Your task to perform on an android device: Add macbook air to the cart on amazon, then select checkout. Image 0: 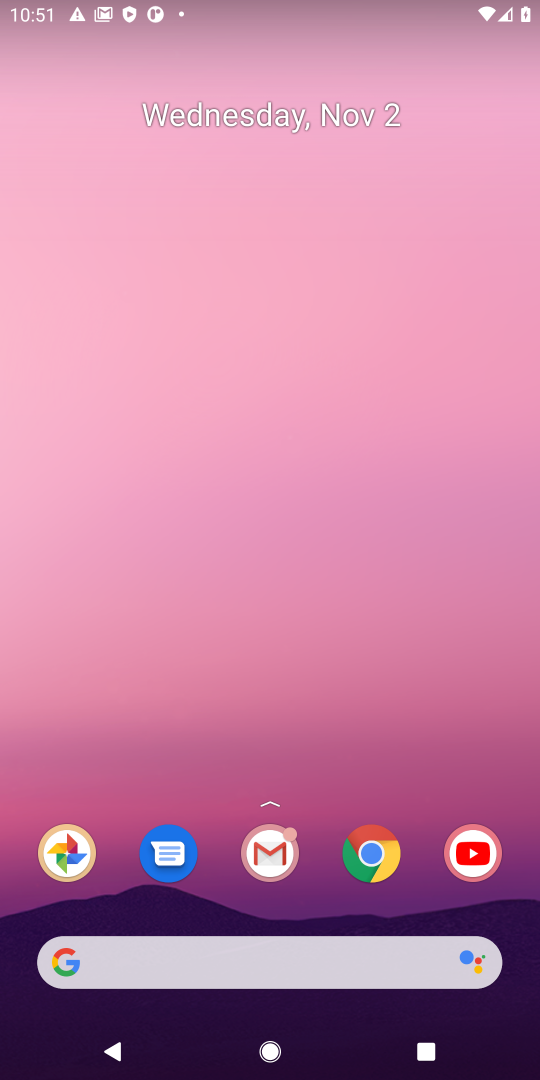
Step 0: click (371, 854)
Your task to perform on an android device: Add macbook air to the cart on amazon, then select checkout. Image 1: 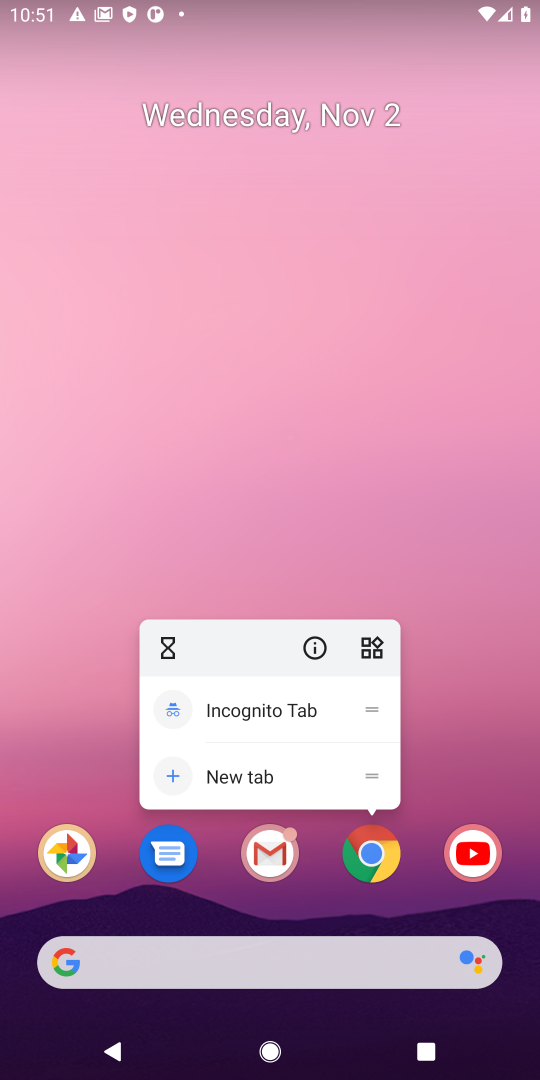
Step 1: click (371, 849)
Your task to perform on an android device: Add macbook air to the cart on amazon, then select checkout. Image 2: 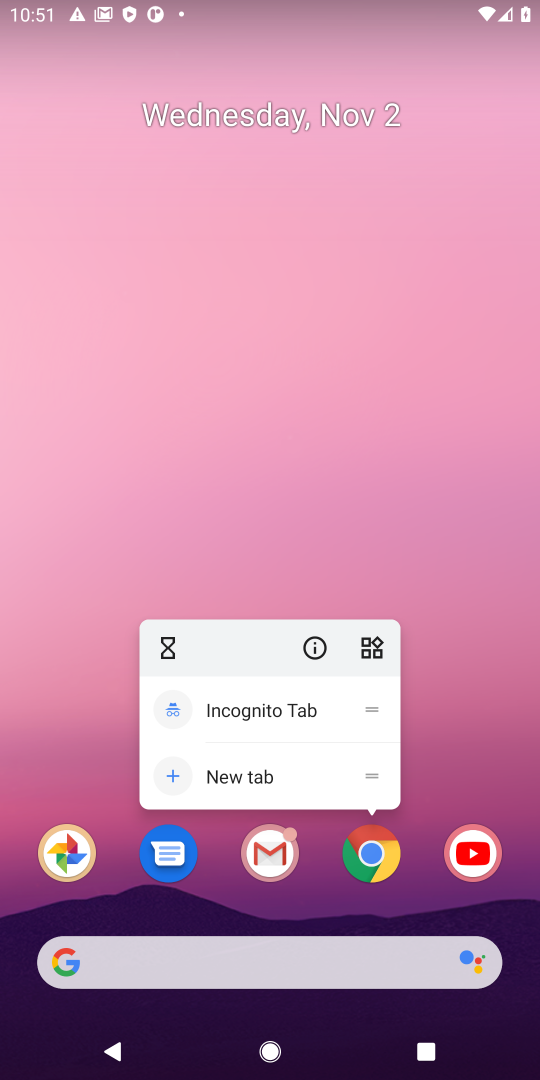
Step 2: click (371, 854)
Your task to perform on an android device: Add macbook air to the cart on amazon, then select checkout. Image 3: 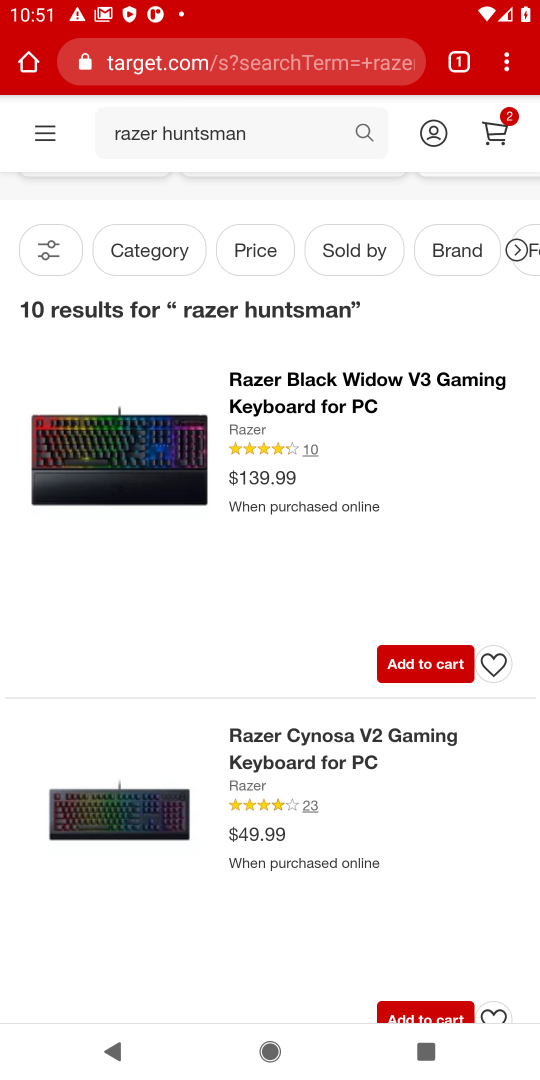
Step 3: click (248, 67)
Your task to perform on an android device: Add macbook air to the cart on amazon, then select checkout. Image 4: 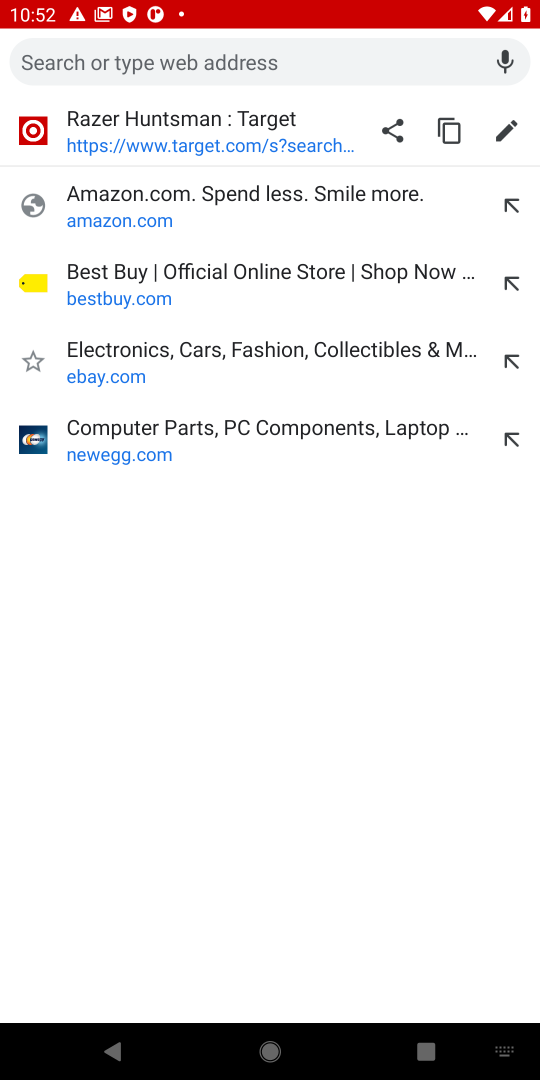
Step 4: click (96, 222)
Your task to perform on an android device: Add macbook air to the cart on amazon, then select checkout. Image 5: 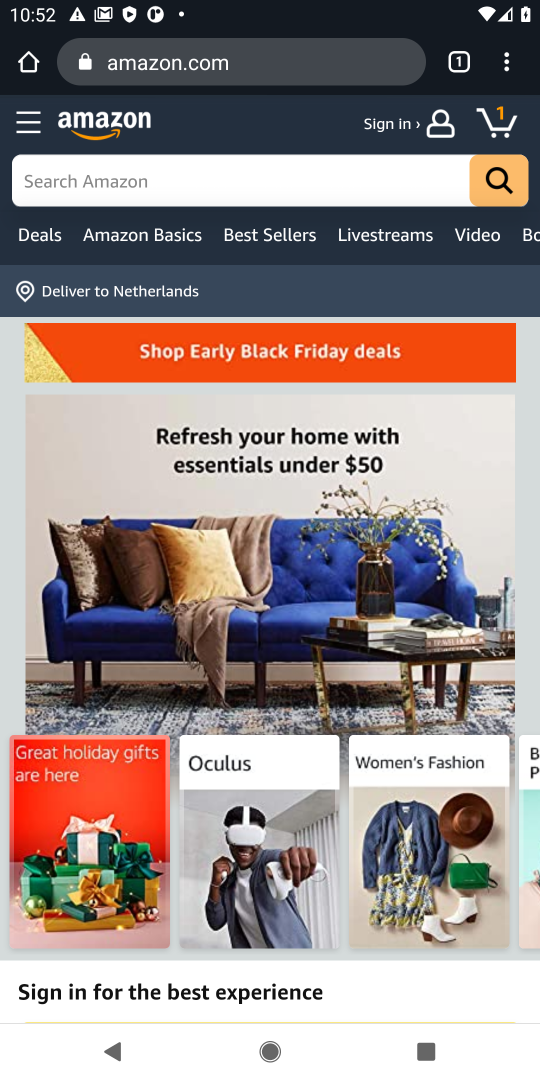
Step 5: click (102, 185)
Your task to perform on an android device: Add macbook air to the cart on amazon, then select checkout. Image 6: 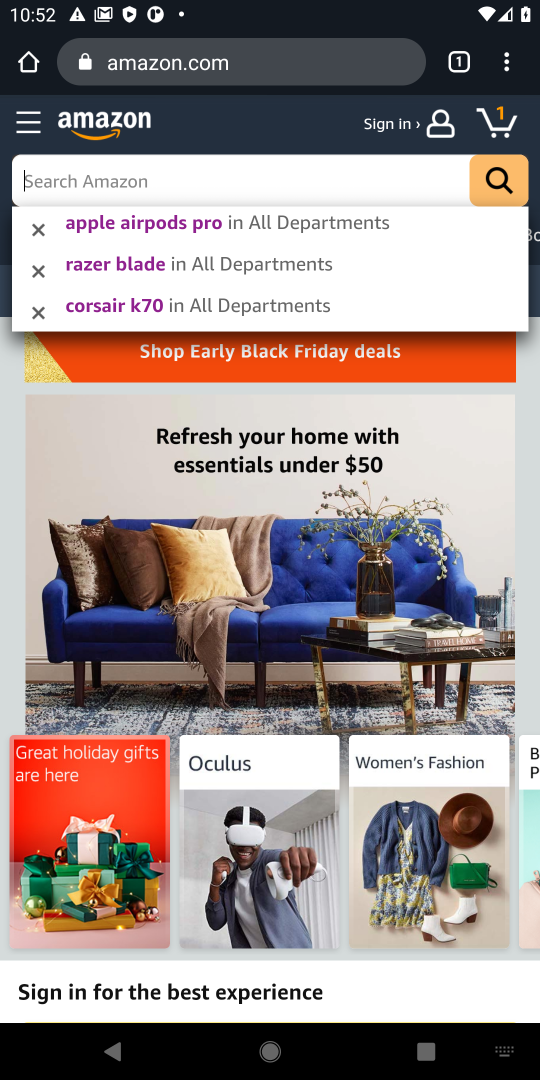
Step 6: type " macbook air"
Your task to perform on an android device: Add macbook air to the cart on amazon, then select checkout. Image 7: 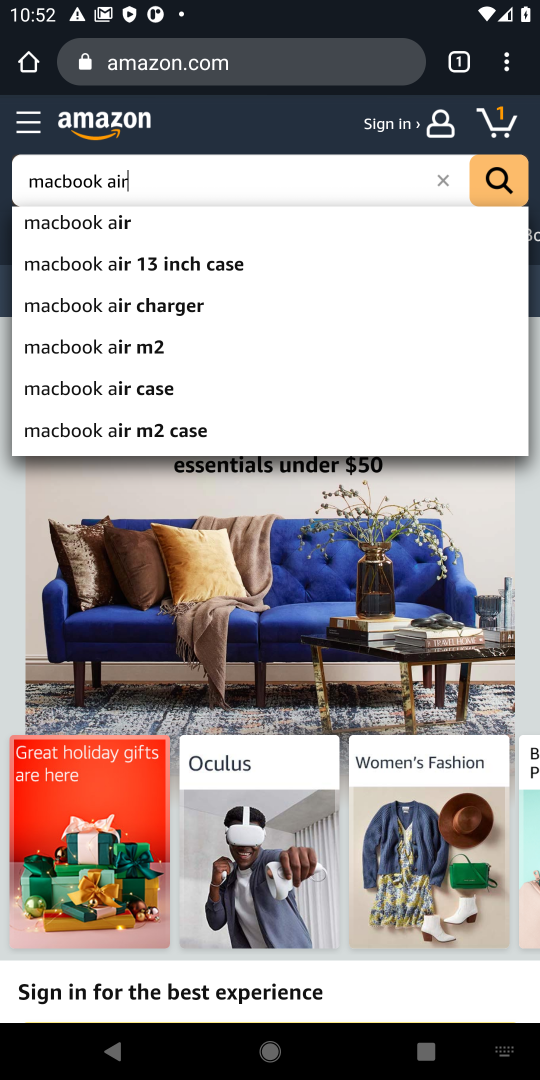
Step 7: press enter
Your task to perform on an android device: Add macbook air to the cart on amazon, then select checkout. Image 8: 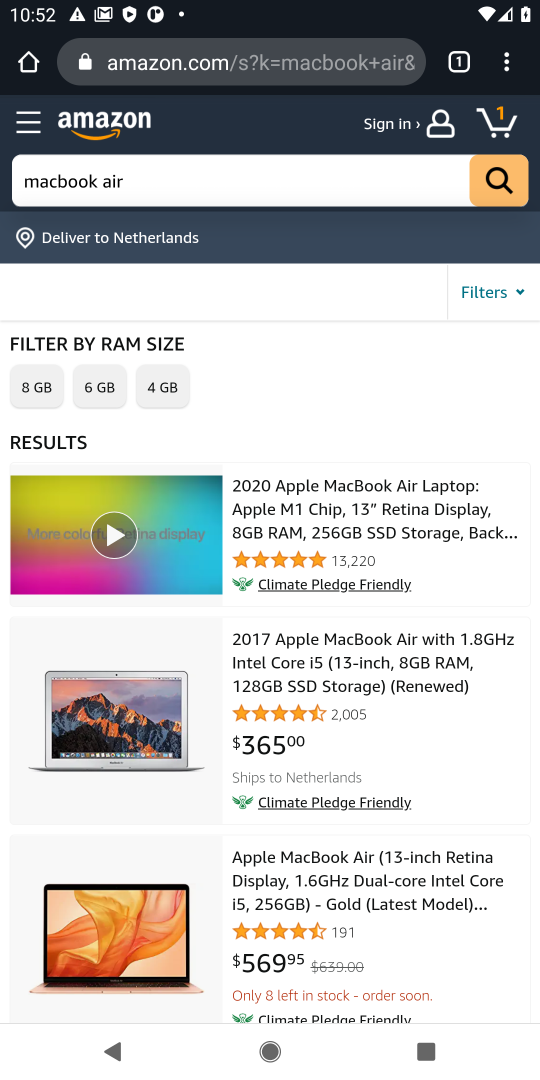
Step 8: click (336, 495)
Your task to perform on an android device: Add macbook air to the cart on amazon, then select checkout. Image 9: 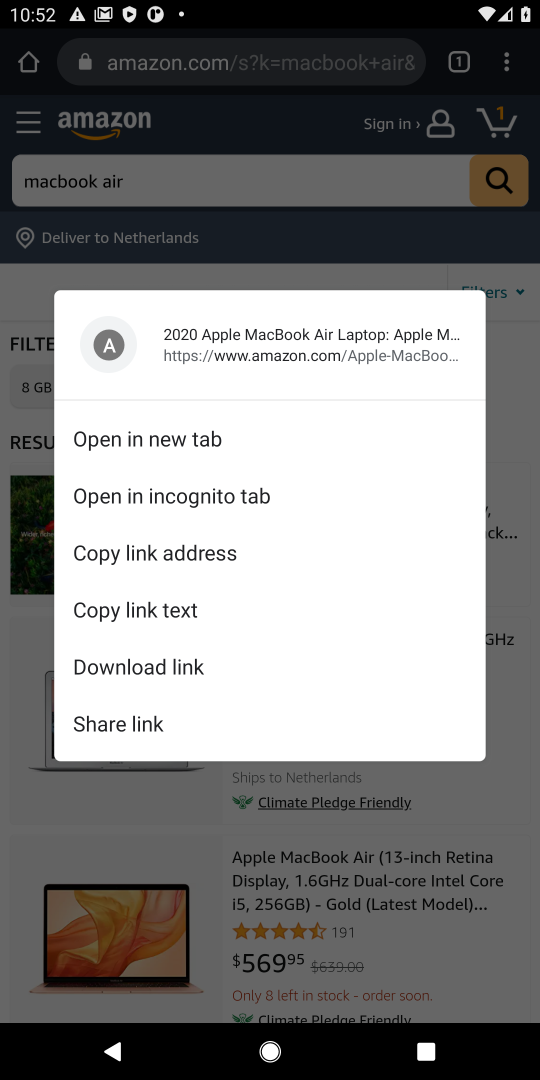
Step 9: click (502, 521)
Your task to perform on an android device: Add macbook air to the cart on amazon, then select checkout. Image 10: 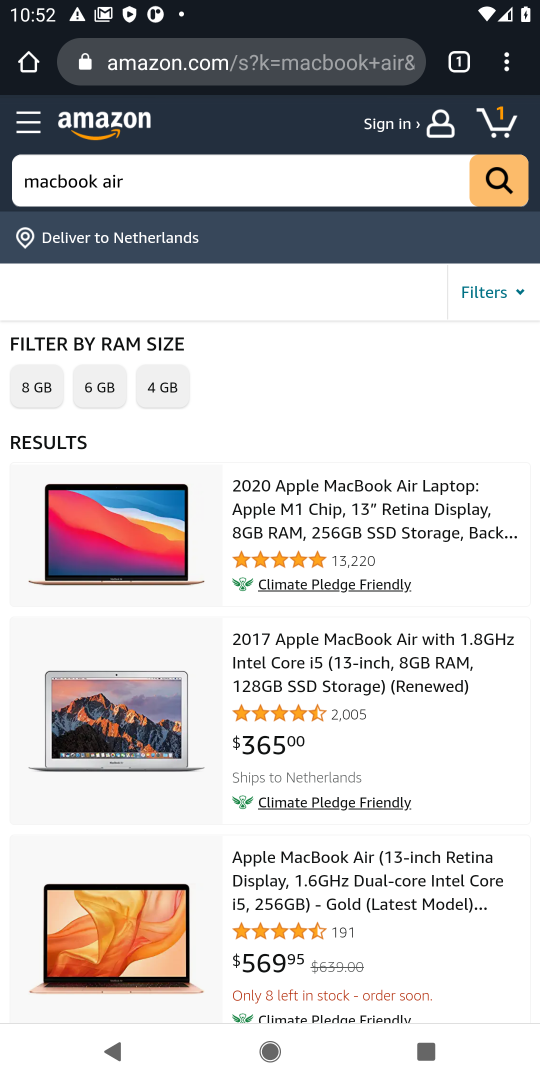
Step 10: click (252, 527)
Your task to perform on an android device: Add macbook air to the cart on amazon, then select checkout. Image 11: 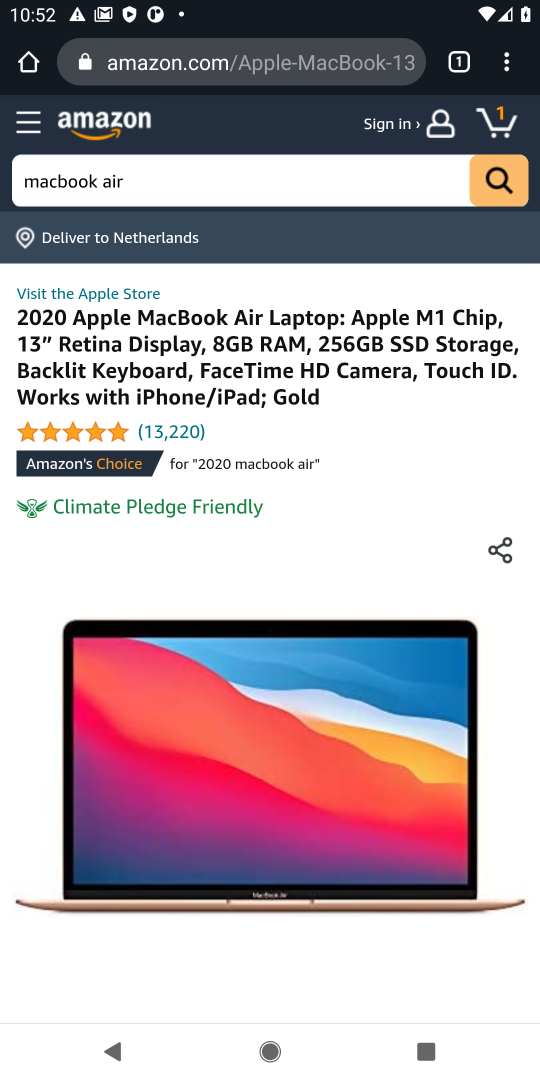
Step 11: drag from (146, 824) to (454, 261)
Your task to perform on an android device: Add macbook air to the cart on amazon, then select checkout. Image 12: 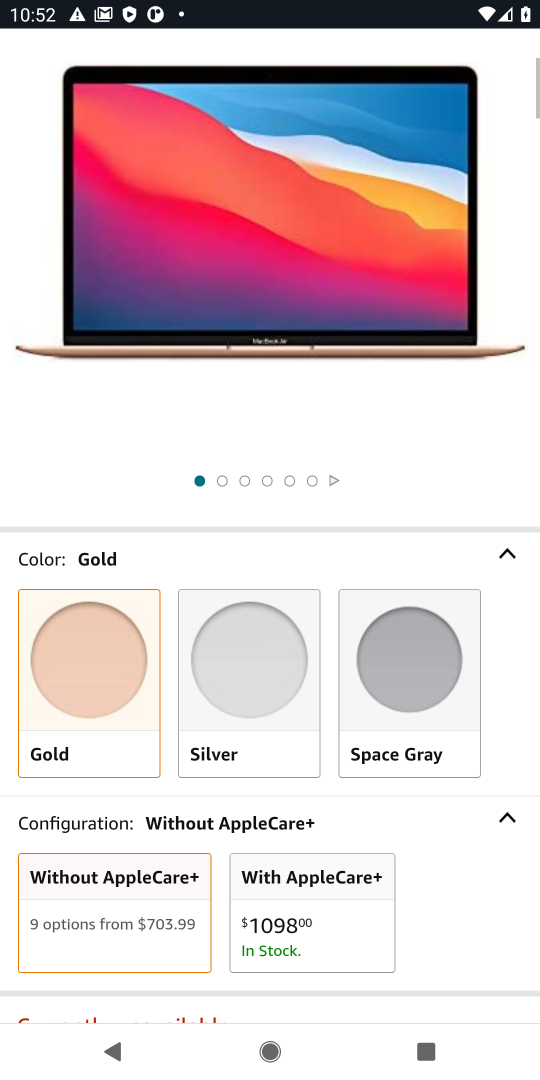
Step 12: drag from (297, 910) to (389, 397)
Your task to perform on an android device: Add macbook air to the cart on amazon, then select checkout. Image 13: 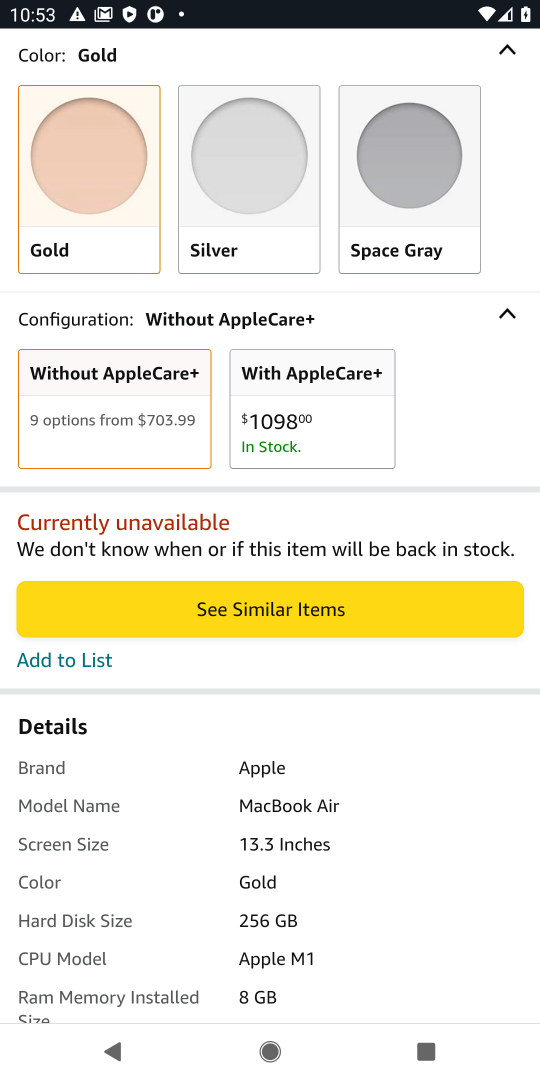
Step 13: press back button
Your task to perform on an android device: Add macbook air to the cart on amazon, then select checkout. Image 14: 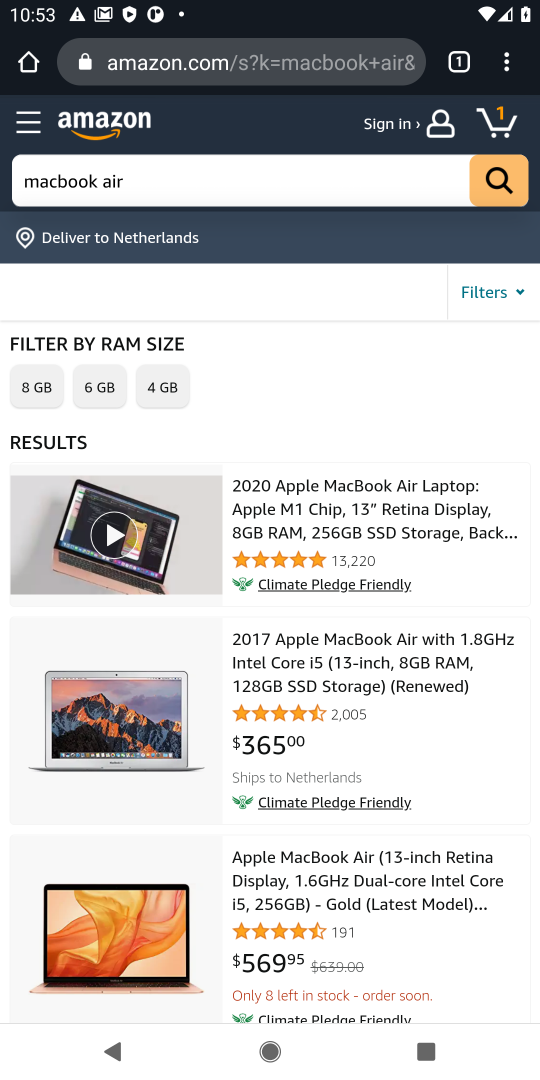
Step 14: click (309, 680)
Your task to perform on an android device: Add macbook air to the cart on amazon, then select checkout. Image 15: 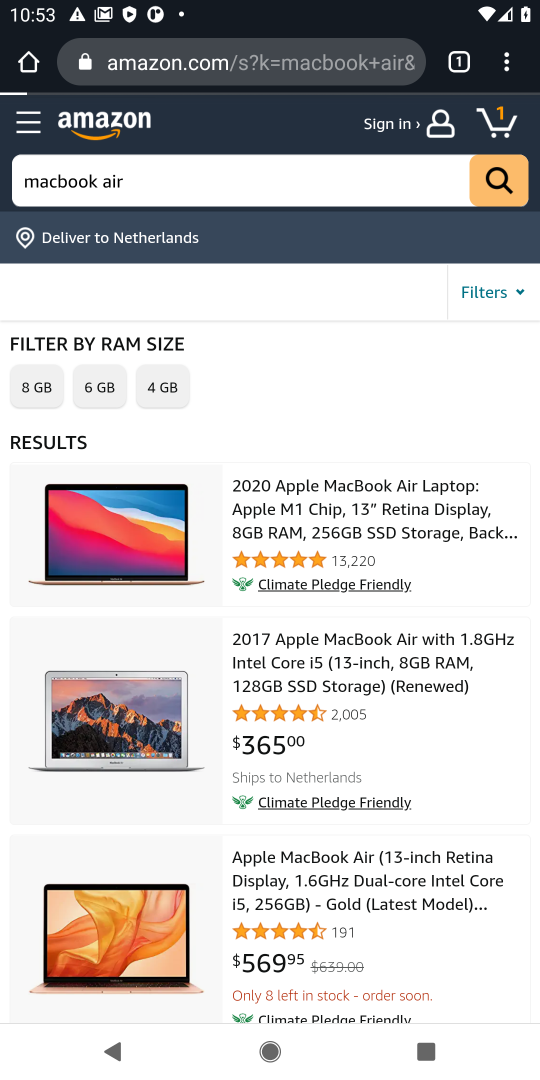
Step 15: click (278, 657)
Your task to perform on an android device: Add macbook air to the cart on amazon, then select checkout. Image 16: 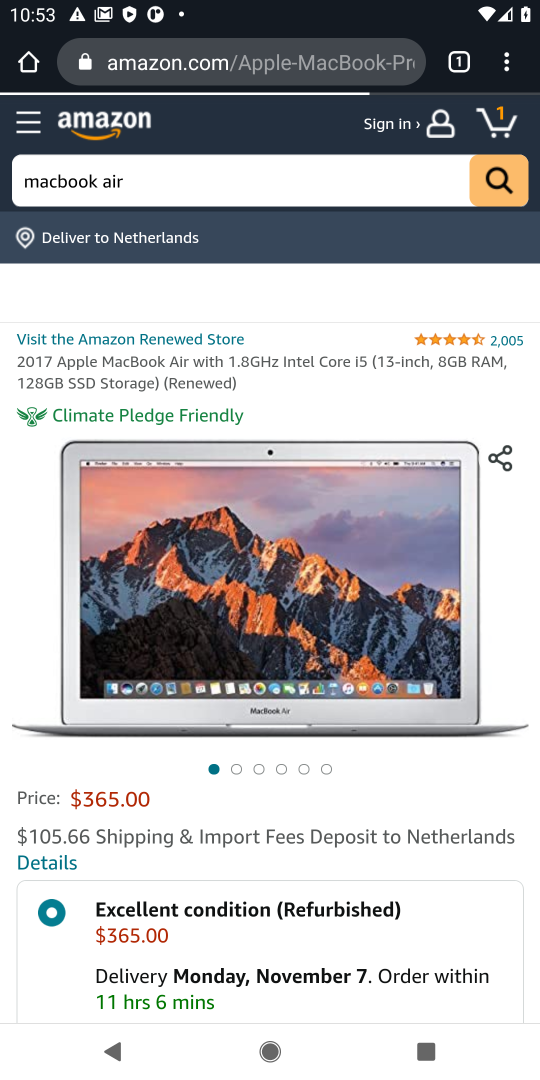
Step 16: drag from (269, 918) to (340, 450)
Your task to perform on an android device: Add macbook air to the cart on amazon, then select checkout. Image 17: 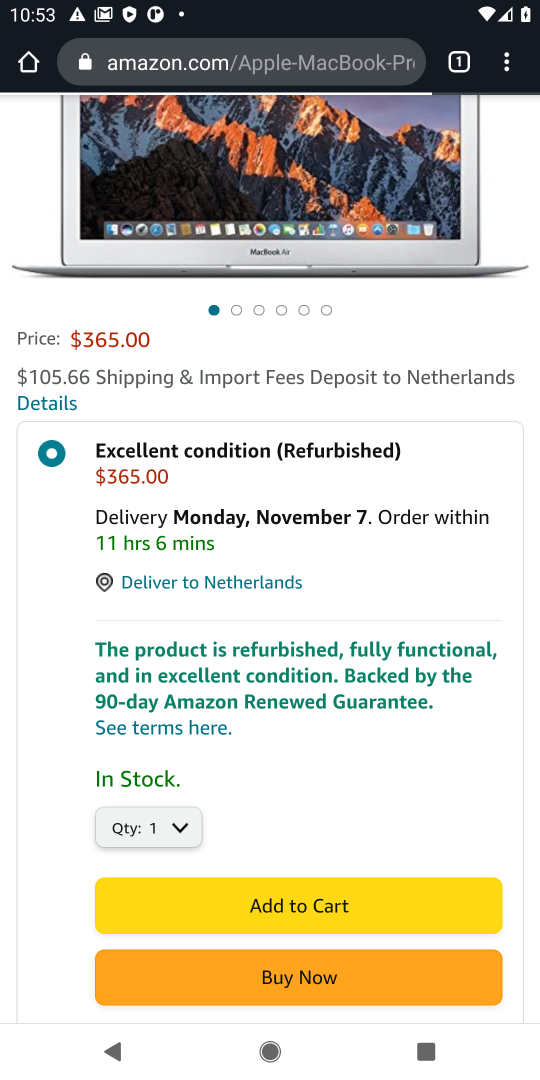
Step 17: click (284, 905)
Your task to perform on an android device: Add macbook air to the cart on amazon, then select checkout. Image 18: 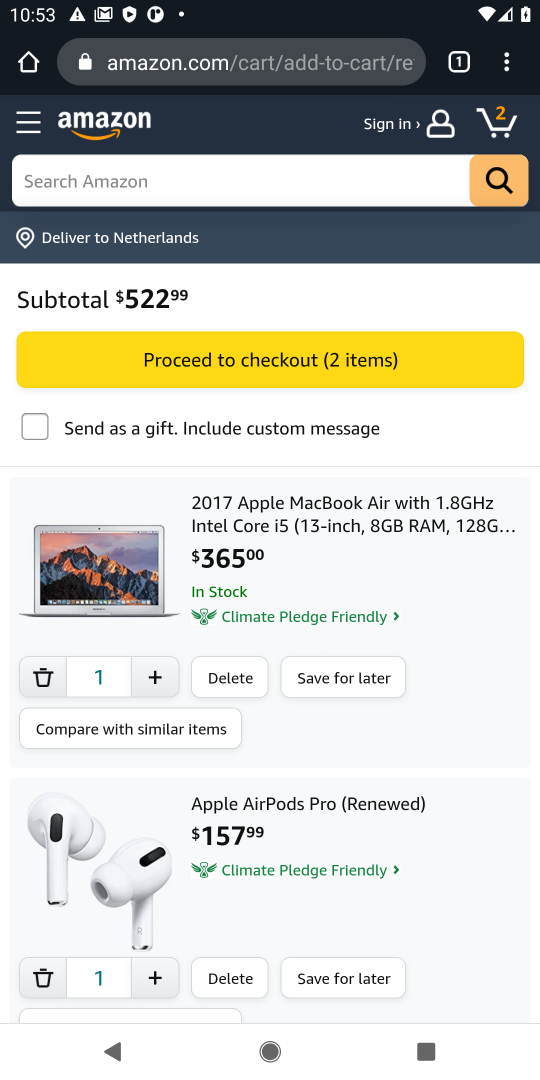
Step 18: click (234, 973)
Your task to perform on an android device: Add macbook air to the cart on amazon, then select checkout. Image 19: 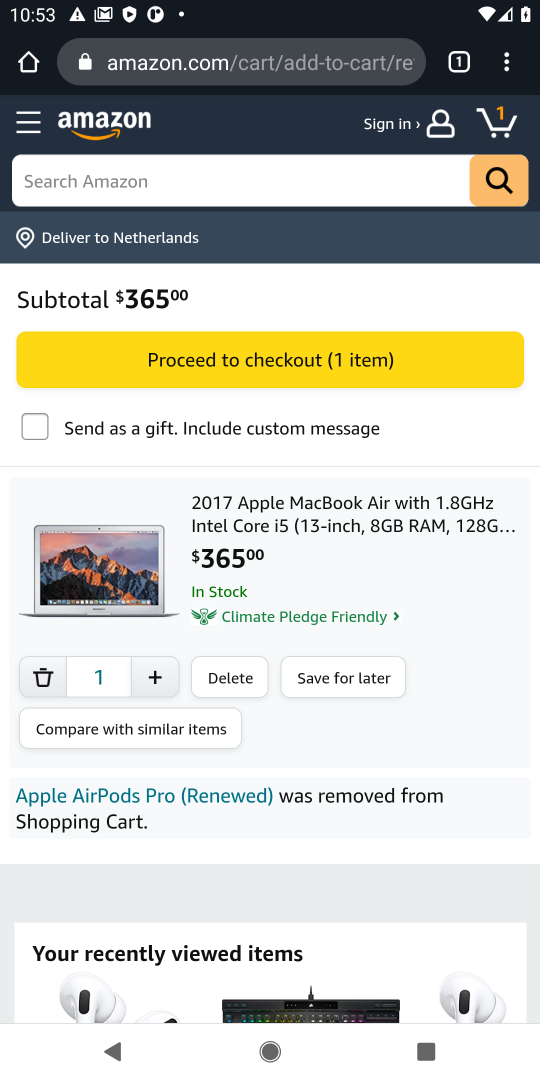
Step 19: drag from (341, 848) to (363, 695)
Your task to perform on an android device: Add macbook air to the cart on amazon, then select checkout. Image 20: 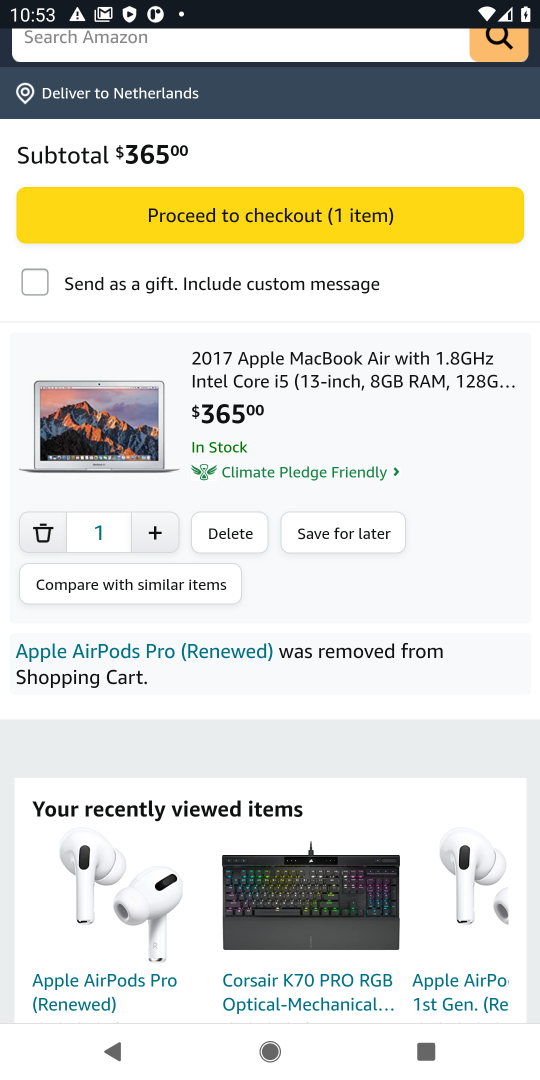
Step 20: click (267, 212)
Your task to perform on an android device: Add macbook air to the cart on amazon, then select checkout. Image 21: 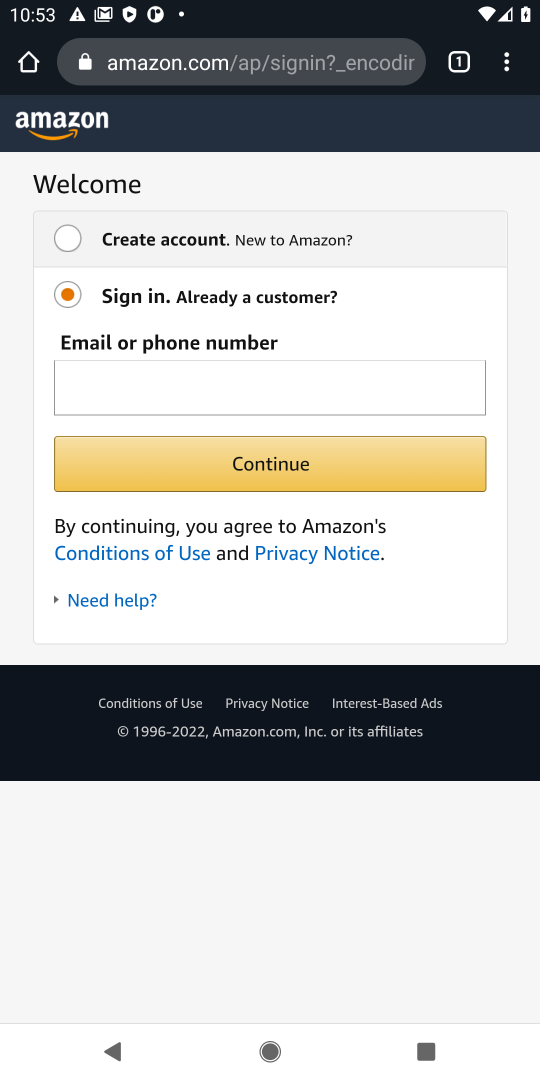
Step 21: task complete